Your task to perform on an android device: open app "Expedia: Hotels, Flights & Car" (install if not already installed) and go to login screen Image 0: 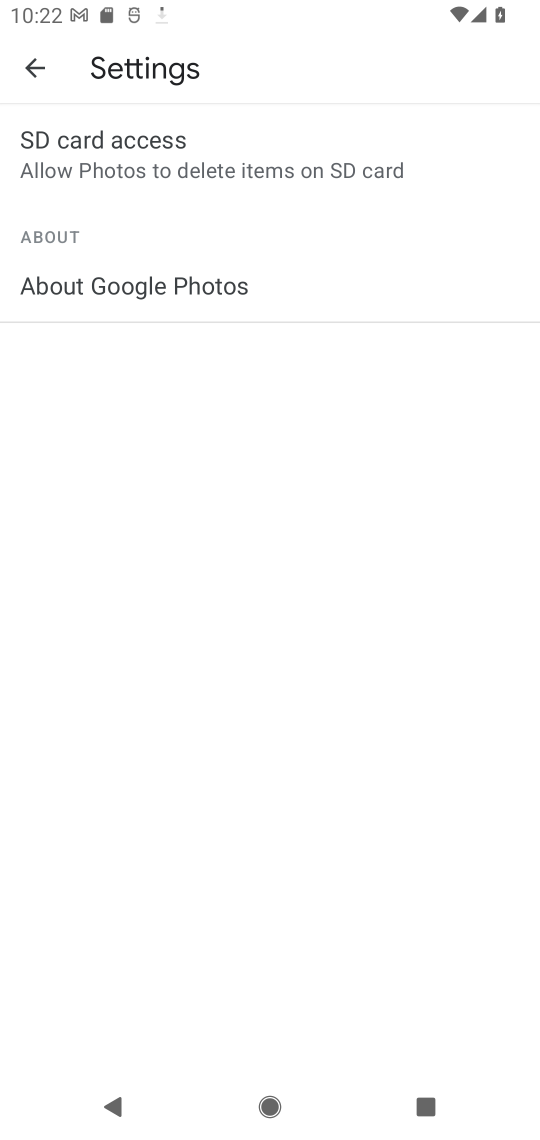
Step 0: press home button
Your task to perform on an android device: open app "Expedia: Hotels, Flights & Car" (install if not already installed) and go to login screen Image 1: 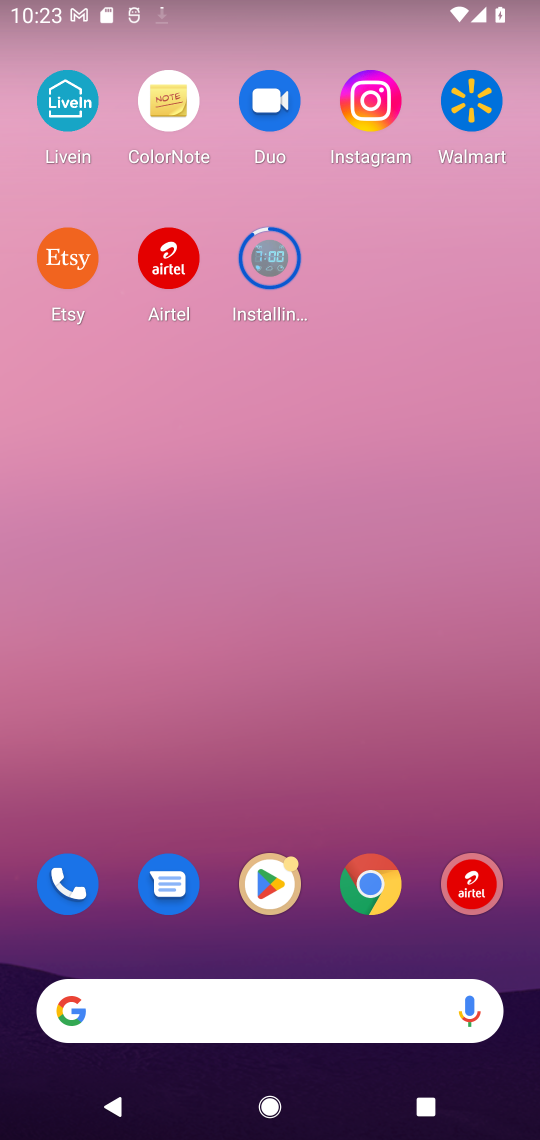
Step 1: click (274, 881)
Your task to perform on an android device: open app "Expedia: Hotels, Flights & Car" (install if not already installed) and go to login screen Image 2: 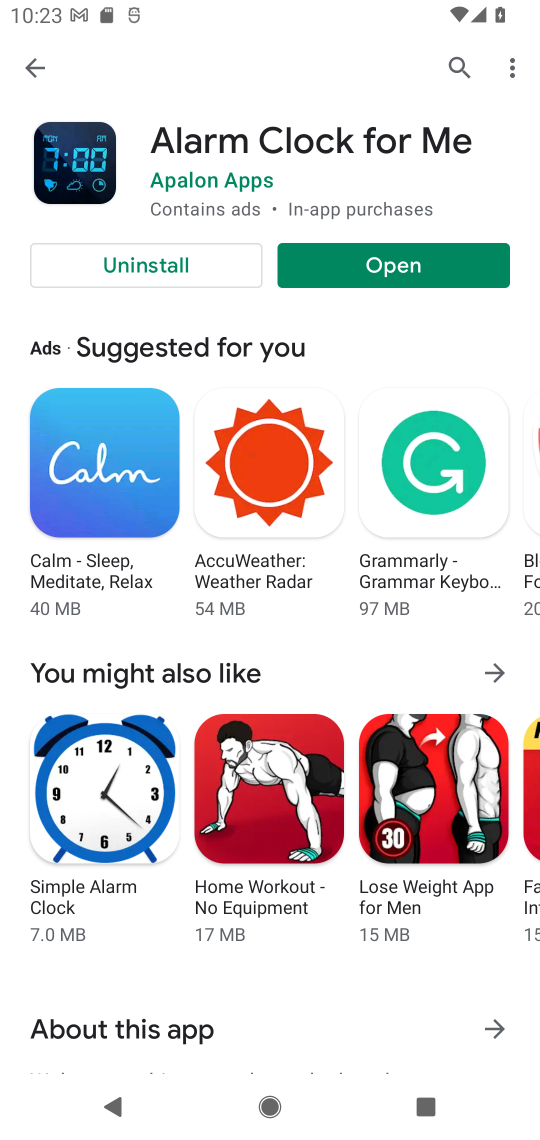
Step 2: click (447, 72)
Your task to perform on an android device: open app "Expedia: Hotels, Flights & Car" (install if not already installed) and go to login screen Image 3: 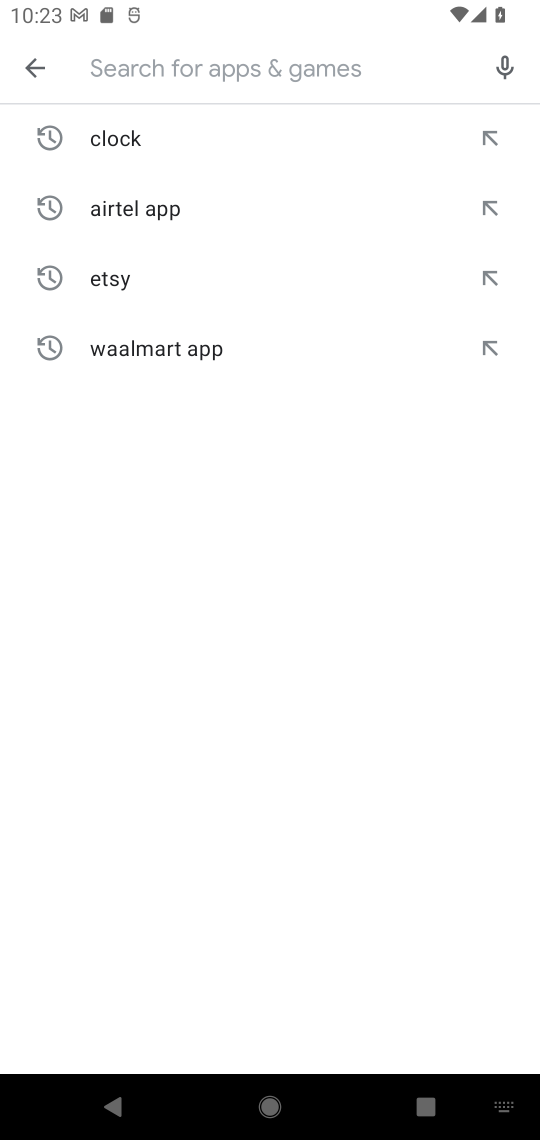
Step 3: type "expedia"
Your task to perform on an android device: open app "Expedia: Hotels, Flights & Car" (install if not already installed) and go to login screen Image 4: 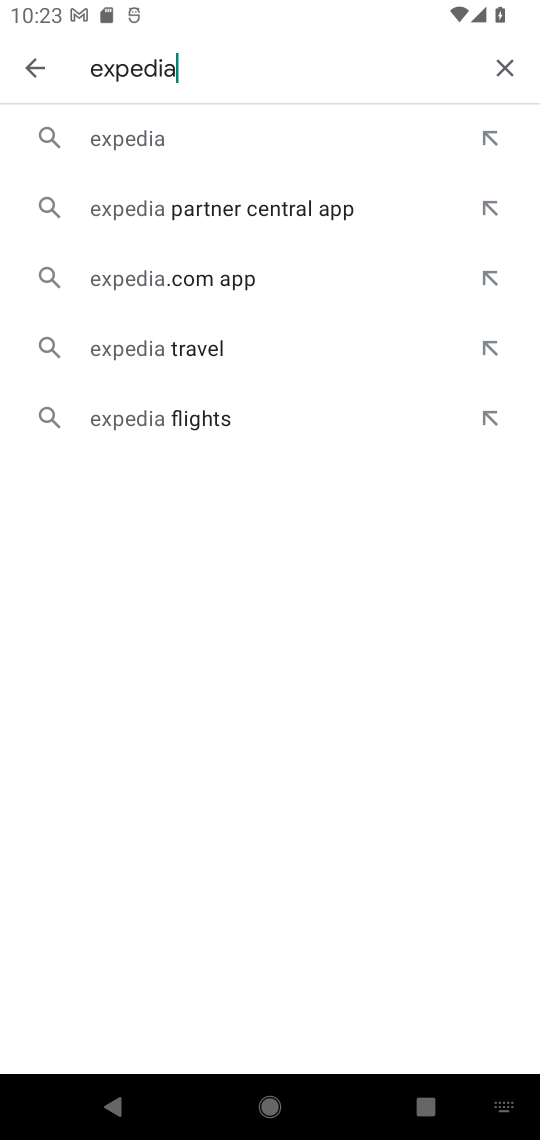
Step 4: click (279, 137)
Your task to perform on an android device: open app "Expedia: Hotels, Flights & Car" (install if not already installed) and go to login screen Image 5: 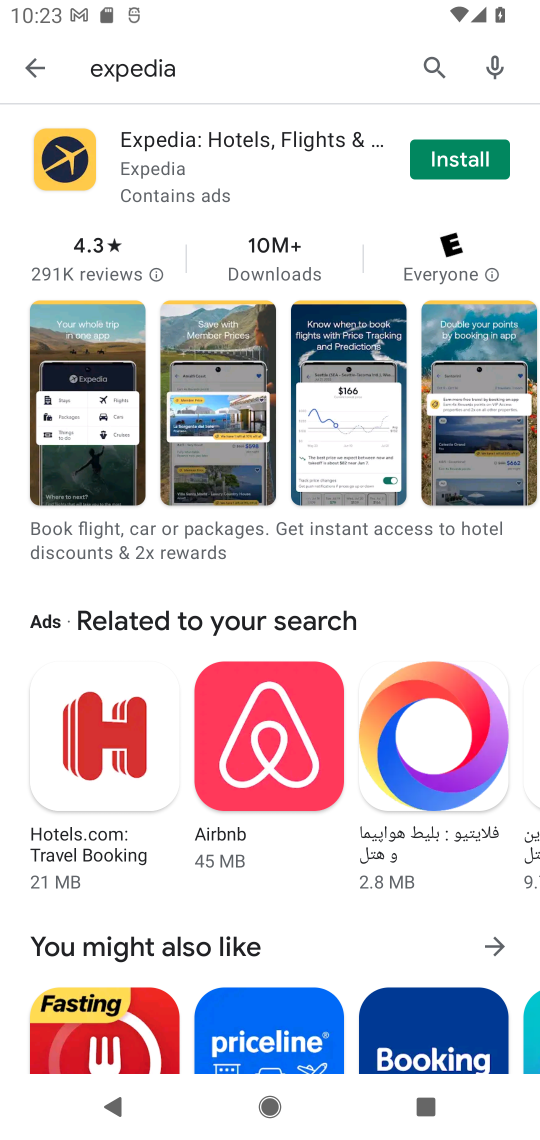
Step 5: click (443, 171)
Your task to perform on an android device: open app "Expedia: Hotels, Flights & Car" (install if not already installed) and go to login screen Image 6: 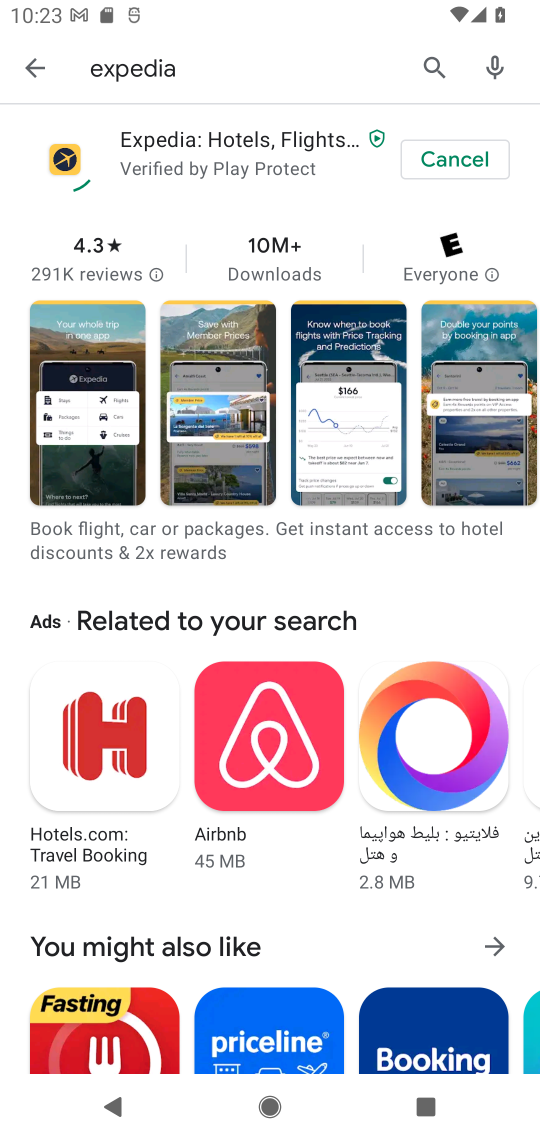
Step 6: click (443, 171)
Your task to perform on an android device: open app "Expedia: Hotels, Flights & Car" (install if not already installed) and go to login screen Image 7: 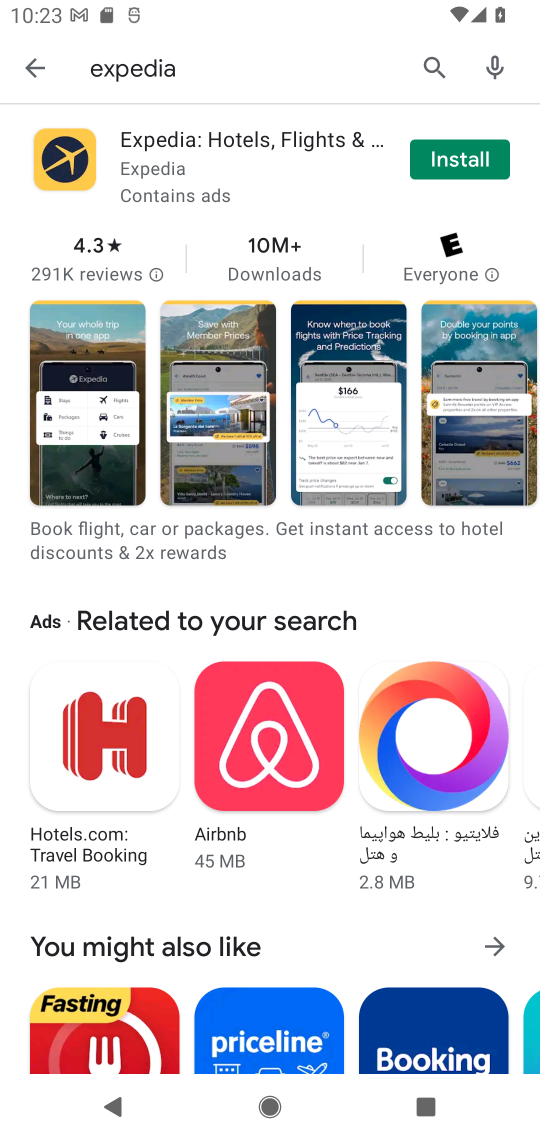
Step 7: task complete